Your task to perform on an android device: Open Google Chrome and click the shortcut for Amazon.com Image 0: 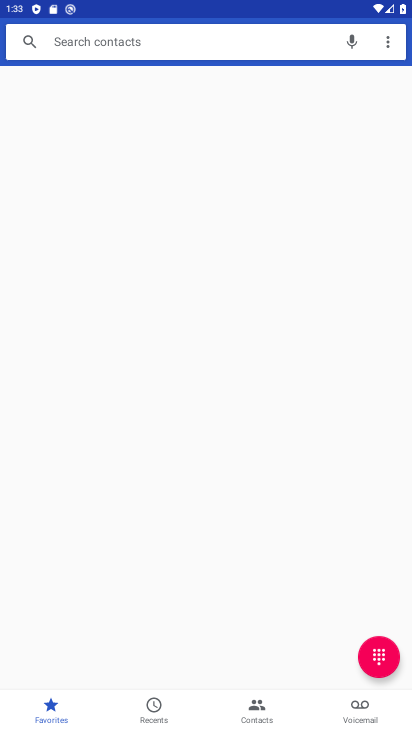
Step 0: press home button
Your task to perform on an android device: Open Google Chrome and click the shortcut for Amazon.com Image 1: 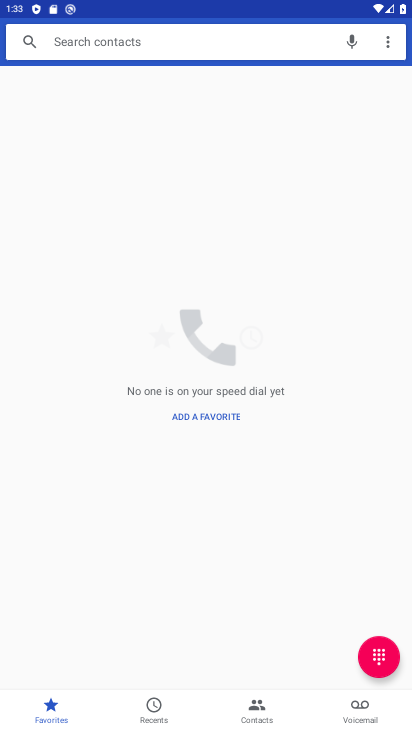
Step 1: press home button
Your task to perform on an android device: Open Google Chrome and click the shortcut for Amazon.com Image 2: 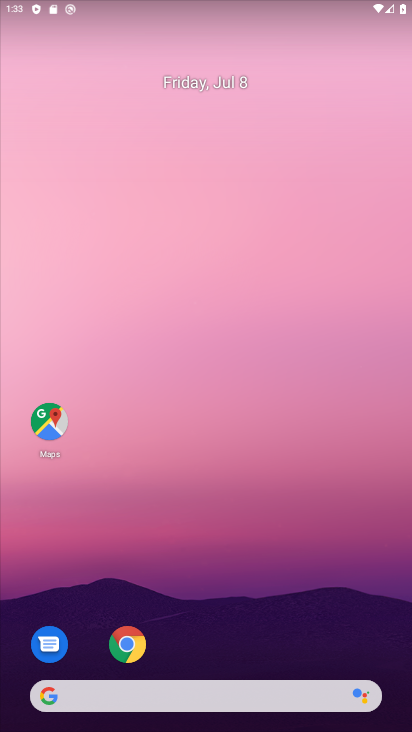
Step 2: click (126, 646)
Your task to perform on an android device: Open Google Chrome and click the shortcut for Amazon.com Image 3: 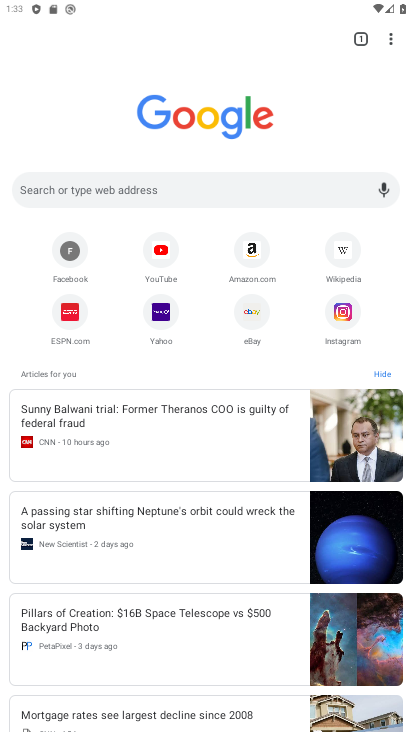
Step 3: click (249, 248)
Your task to perform on an android device: Open Google Chrome and click the shortcut for Amazon.com Image 4: 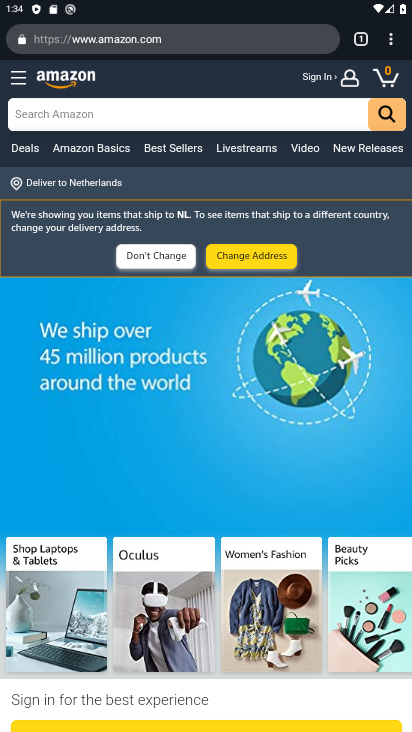
Step 4: task complete